Your task to perform on an android device: Open the web browser Image 0: 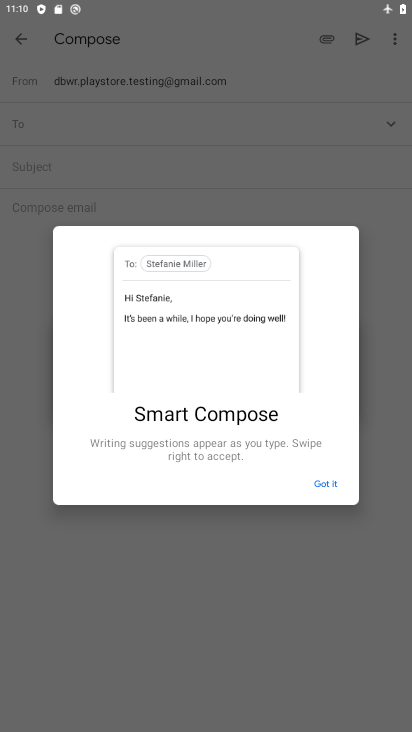
Step 0: press home button
Your task to perform on an android device: Open the web browser Image 1: 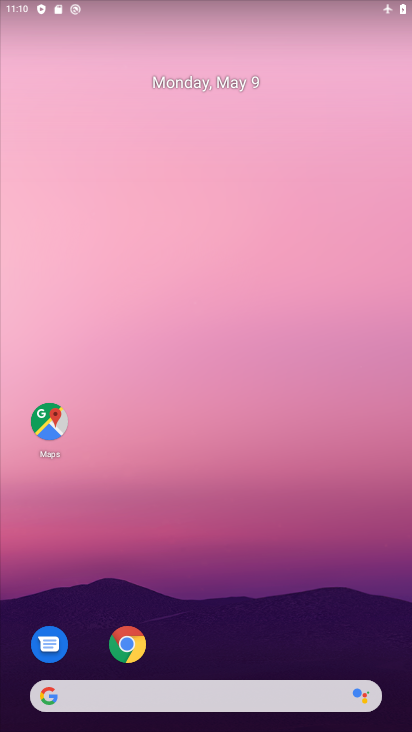
Step 1: click (140, 653)
Your task to perform on an android device: Open the web browser Image 2: 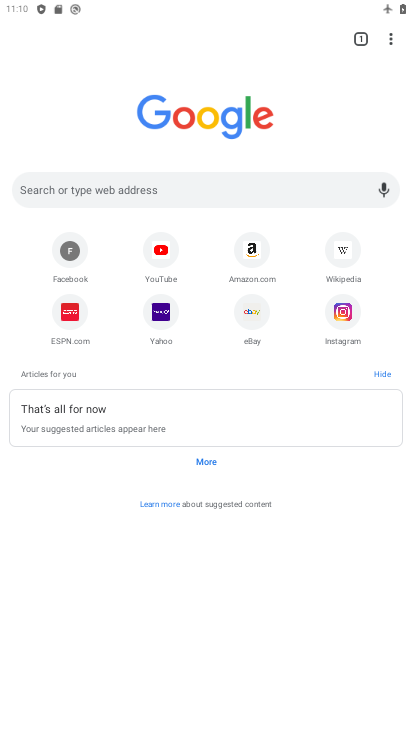
Step 2: task complete